Your task to perform on an android device: Clear the shopping cart on bestbuy.com. Add "logitech g502" to the cart on bestbuy.com Image 0: 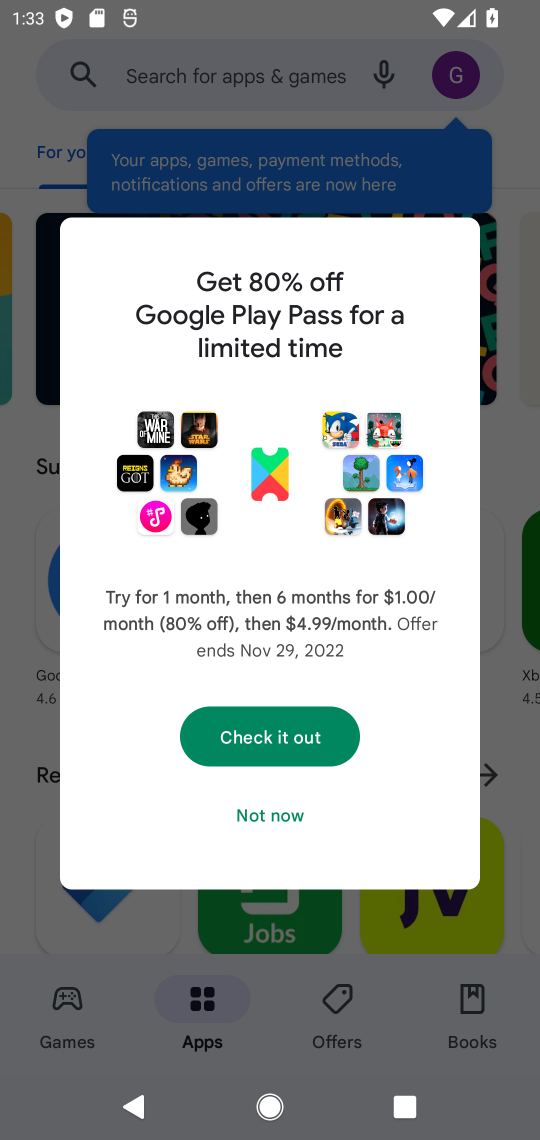
Step 0: press home button
Your task to perform on an android device: Clear the shopping cart on bestbuy.com. Add "logitech g502" to the cart on bestbuy.com Image 1: 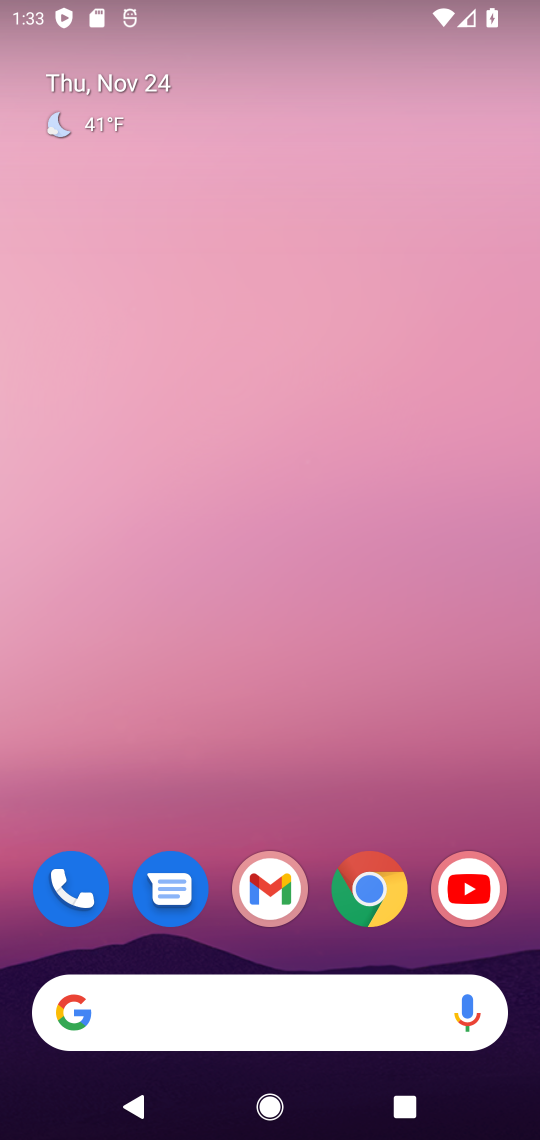
Step 1: click (382, 878)
Your task to perform on an android device: Clear the shopping cart on bestbuy.com. Add "logitech g502" to the cart on bestbuy.com Image 2: 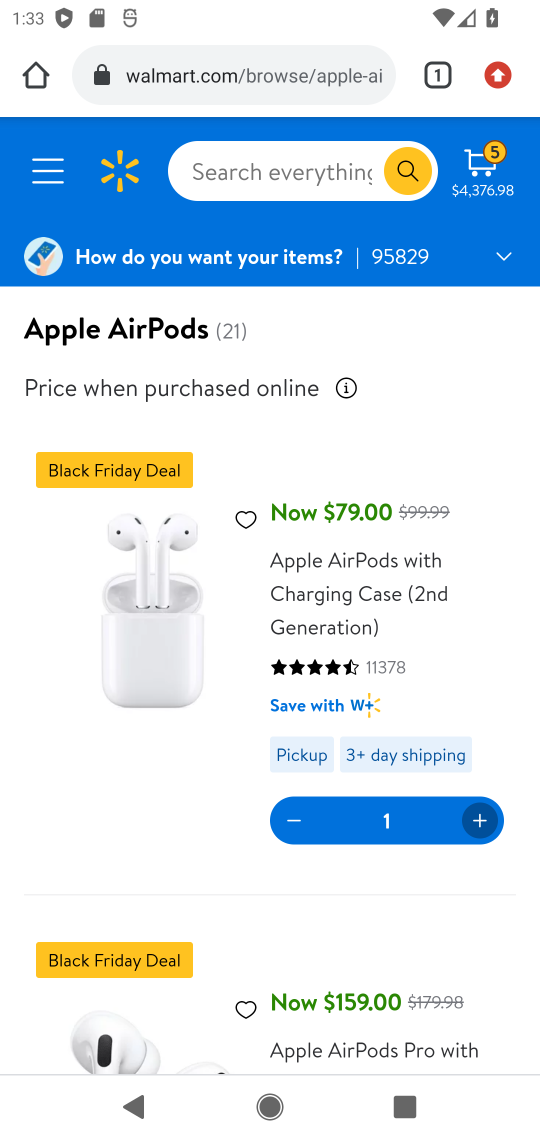
Step 2: click (207, 77)
Your task to perform on an android device: Clear the shopping cart on bestbuy.com. Add "logitech g502" to the cart on bestbuy.com Image 3: 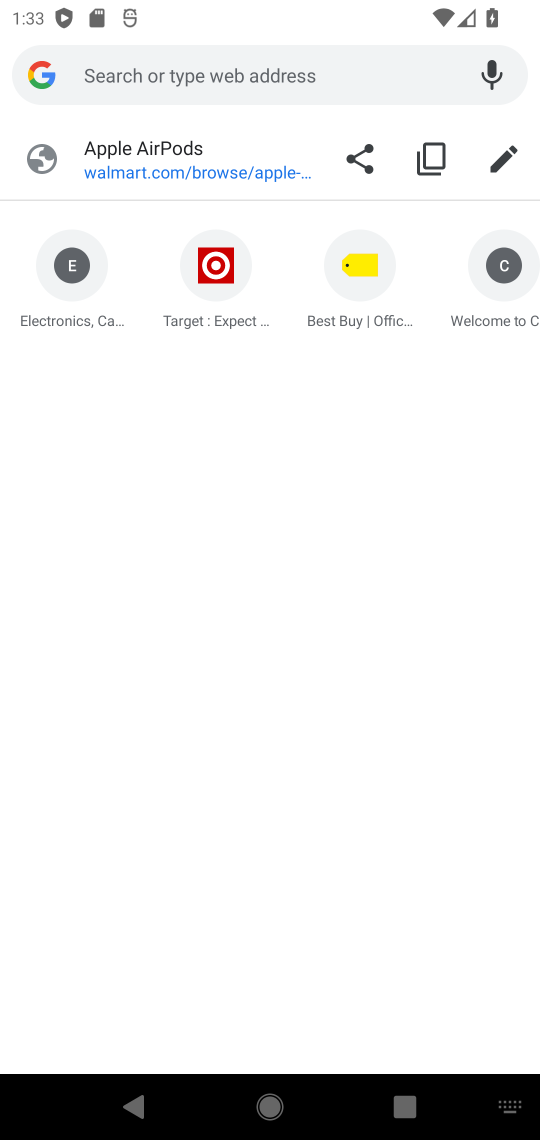
Step 3: click (360, 289)
Your task to perform on an android device: Clear the shopping cart on bestbuy.com. Add "logitech g502" to the cart on bestbuy.com Image 4: 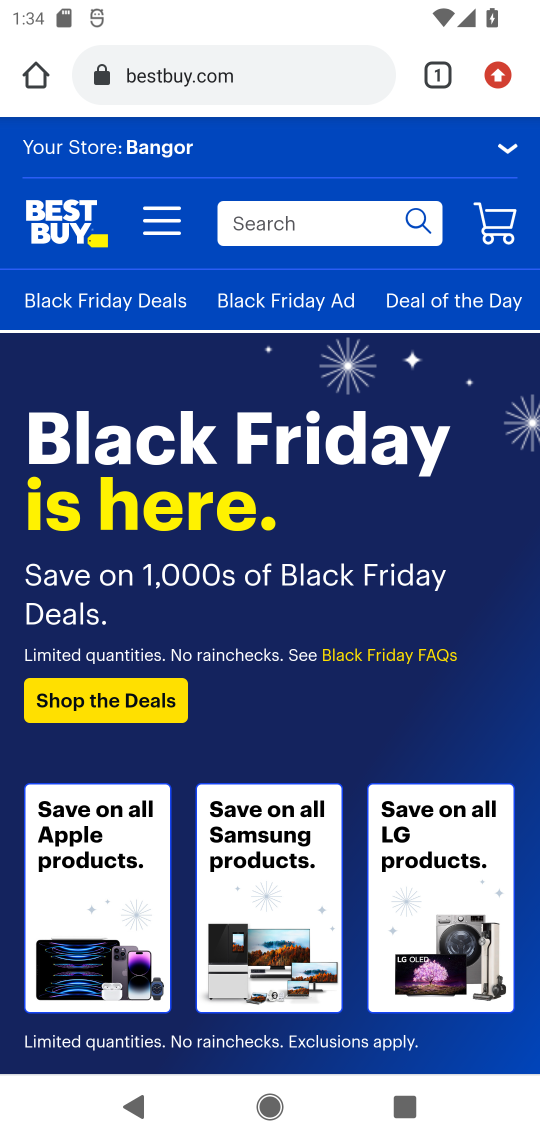
Step 4: click (503, 224)
Your task to perform on an android device: Clear the shopping cart on bestbuy.com. Add "logitech g502" to the cart on bestbuy.com Image 5: 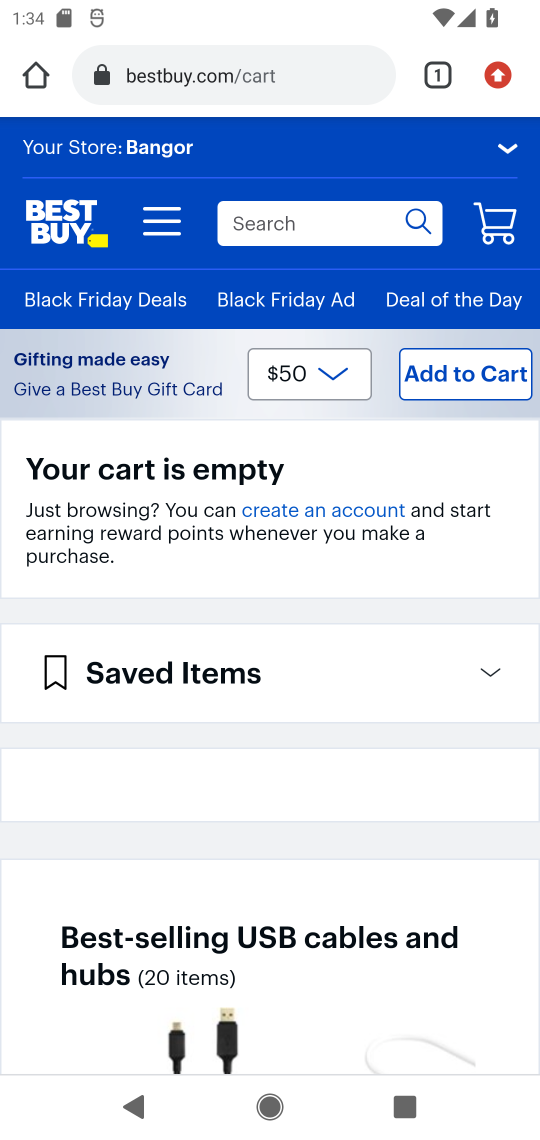
Step 5: click (262, 231)
Your task to perform on an android device: Clear the shopping cart on bestbuy.com. Add "logitech g502" to the cart on bestbuy.com Image 6: 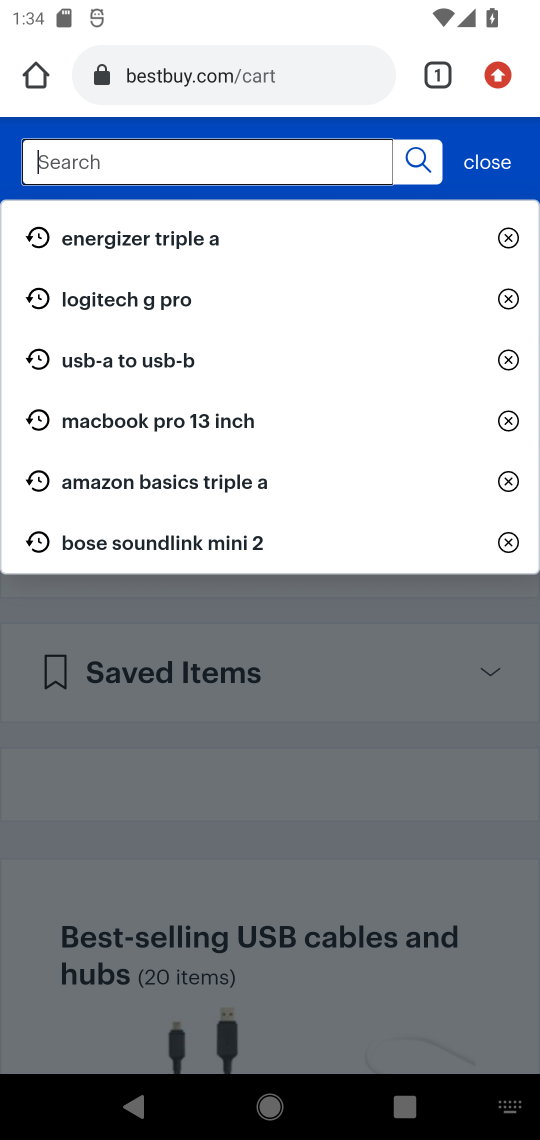
Step 6: type "logitech g502"
Your task to perform on an android device: Clear the shopping cart on bestbuy.com. Add "logitech g502" to the cart on bestbuy.com Image 7: 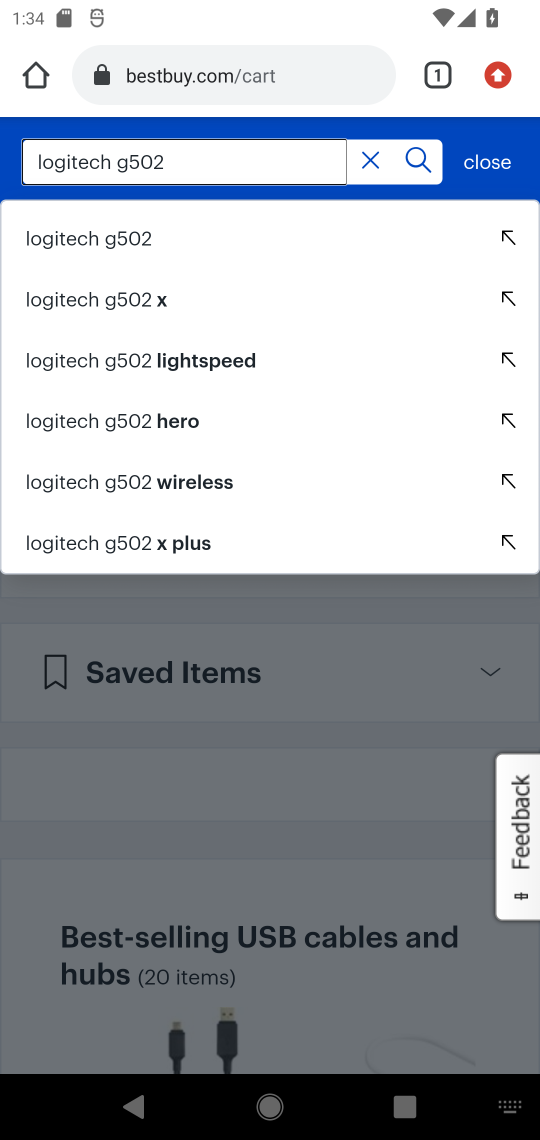
Step 7: click (74, 245)
Your task to perform on an android device: Clear the shopping cart on bestbuy.com. Add "logitech g502" to the cart on bestbuy.com Image 8: 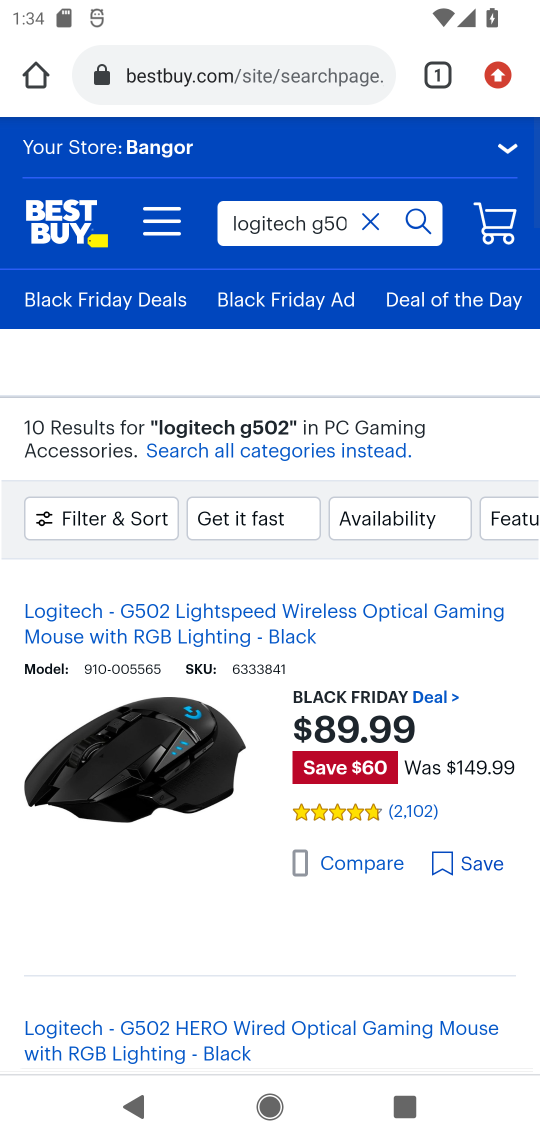
Step 8: drag from (198, 796) to (198, 448)
Your task to perform on an android device: Clear the shopping cart on bestbuy.com. Add "logitech g502" to the cart on bestbuy.com Image 9: 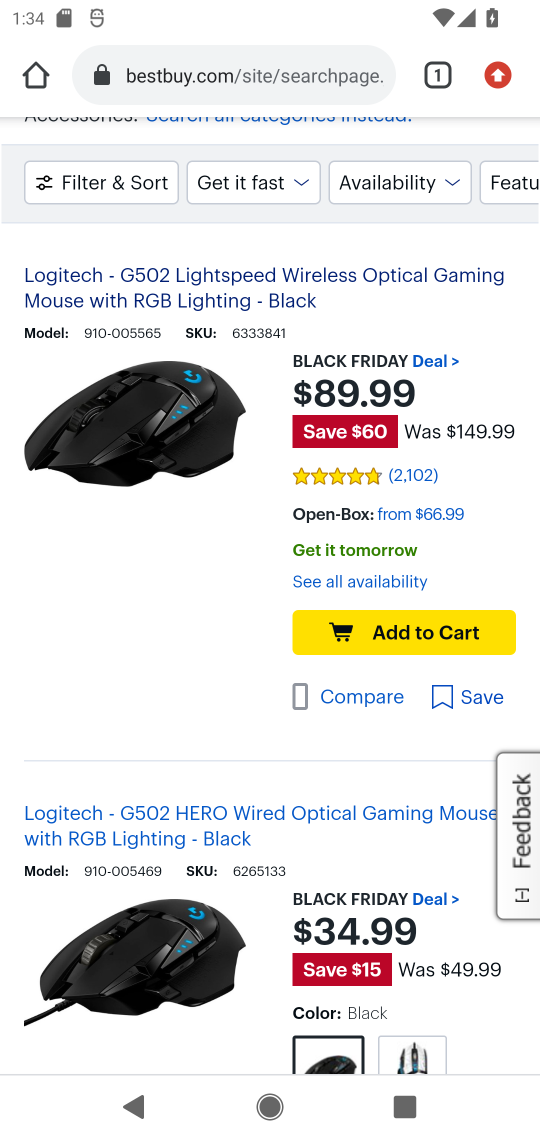
Step 9: click (398, 633)
Your task to perform on an android device: Clear the shopping cart on bestbuy.com. Add "logitech g502" to the cart on bestbuy.com Image 10: 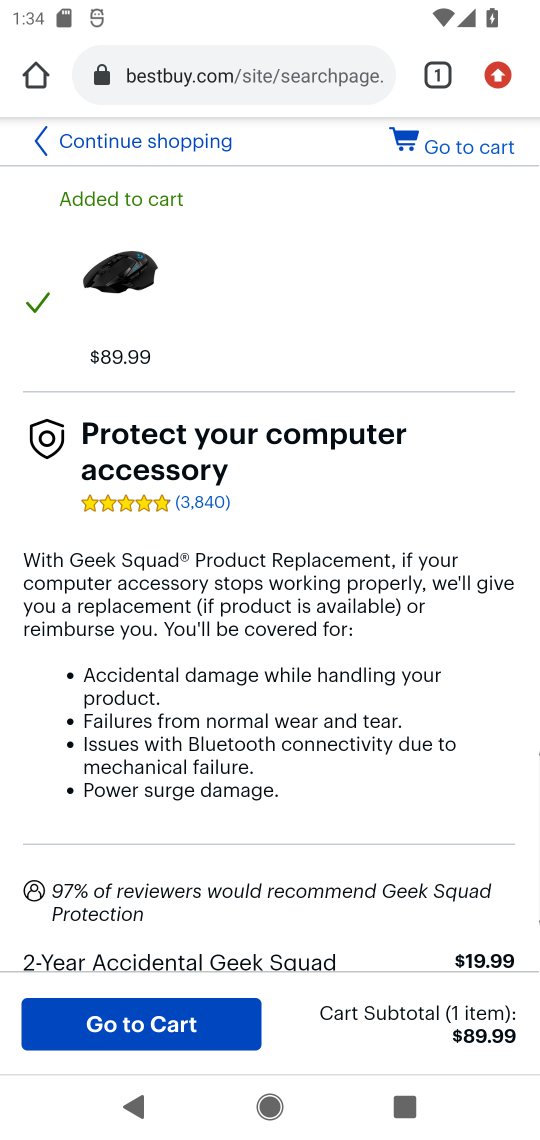
Step 10: task complete